Your task to perform on an android device: Open the phone app and click the voicemail tab. Image 0: 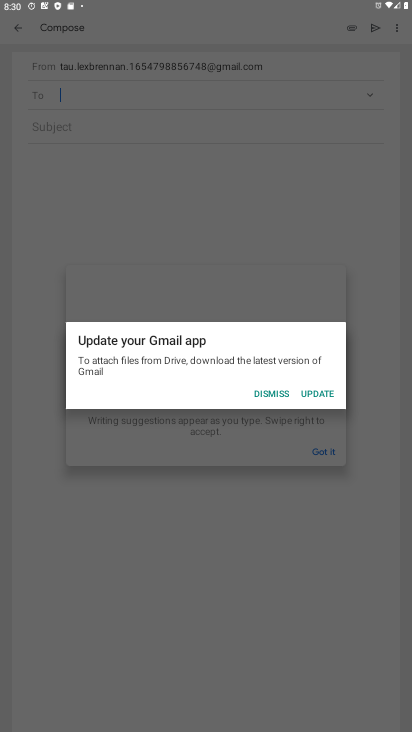
Step 0: press home button
Your task to perform on an android device: Open the phone app and click the voicemail tab. Image 1: 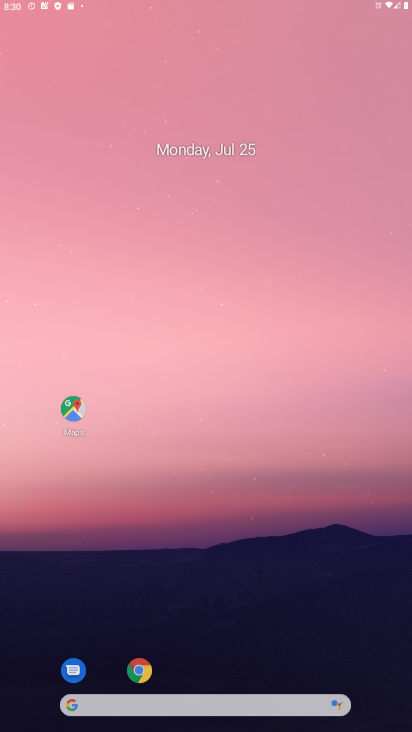
Step 1: drag from (387, 696) to (164, 34)
Your task to perform on an android device: Open the phone app and click the voicemail tab. Image 2: 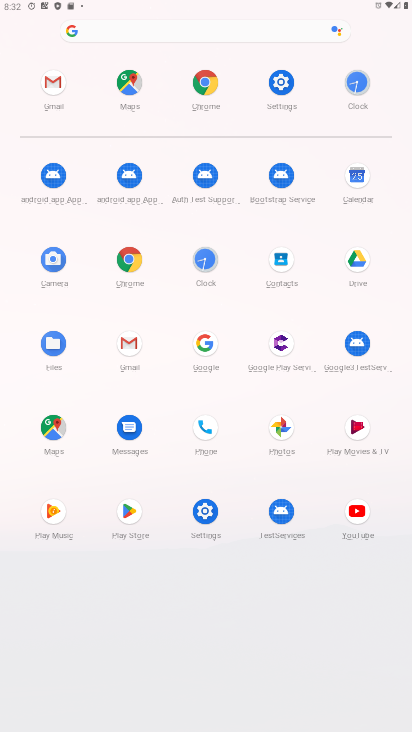
Step 2: click (208, 431)
Your task to perform on an android device: Open the phone app and click the voicemail tab. Image 3: 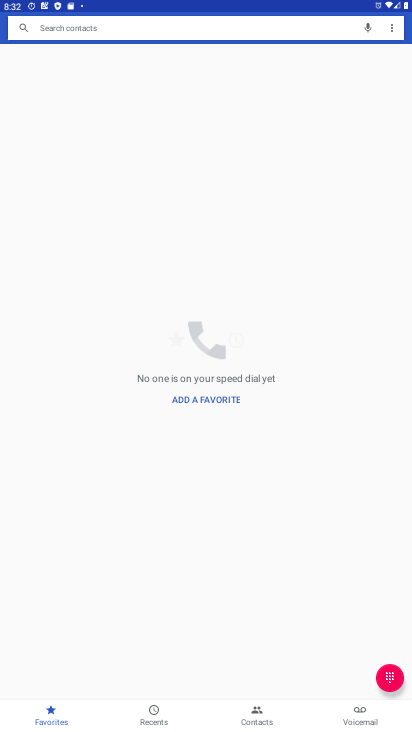
Step 3: click (358, 718)
Your task to perform on an android device: Open the phone app and click the voicemail tab. Image 4: 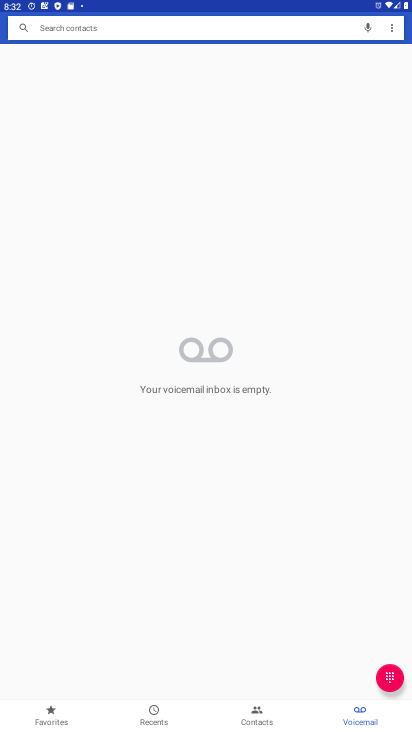
Step 4: task complete